Your task to perform on an android device: Go to battery settings Image 0: 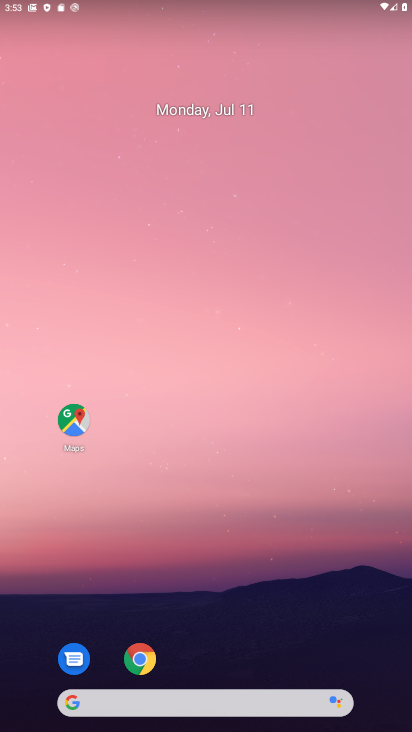
Step 0: drag from (209, 11) to (189, 483)
Your task to perform on an android device: Go to battery settings Image 1: 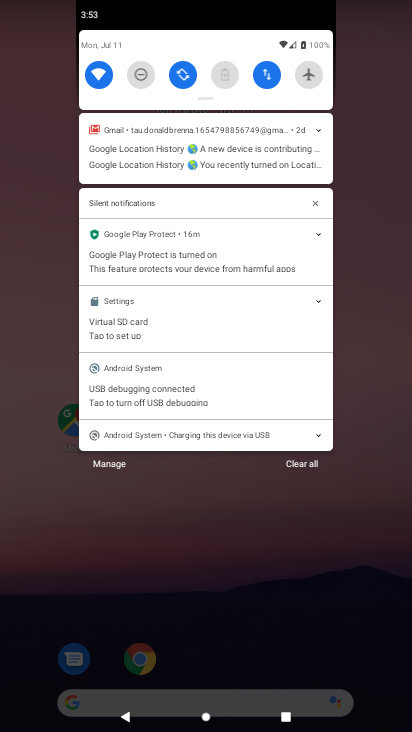
Step 1: click (224, 71)
Your task to perform on an android device: Go to battery settings Image 2: 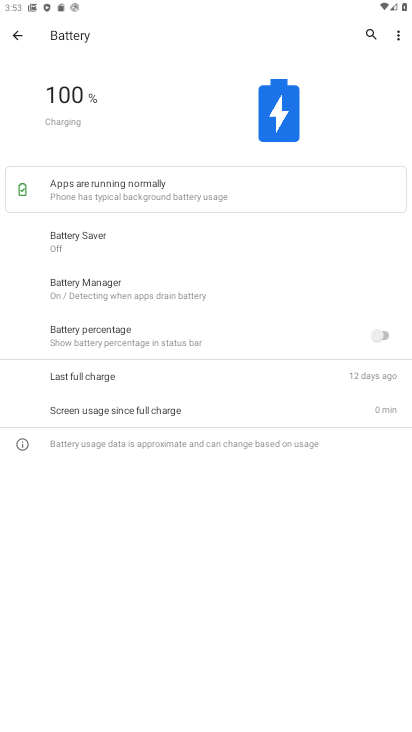
Step 2: task complete